Your task to perform on an android device: When is my next meeting? Image 0: 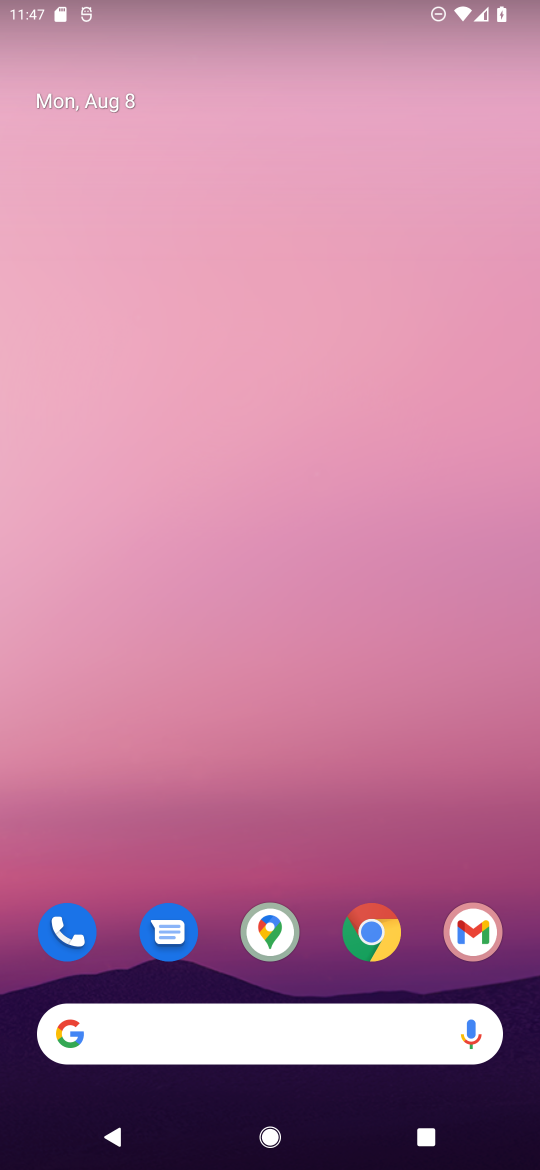
Step 0: click (102, 99)
Your task to perform on an android device: When is my next meeting? Image 1: 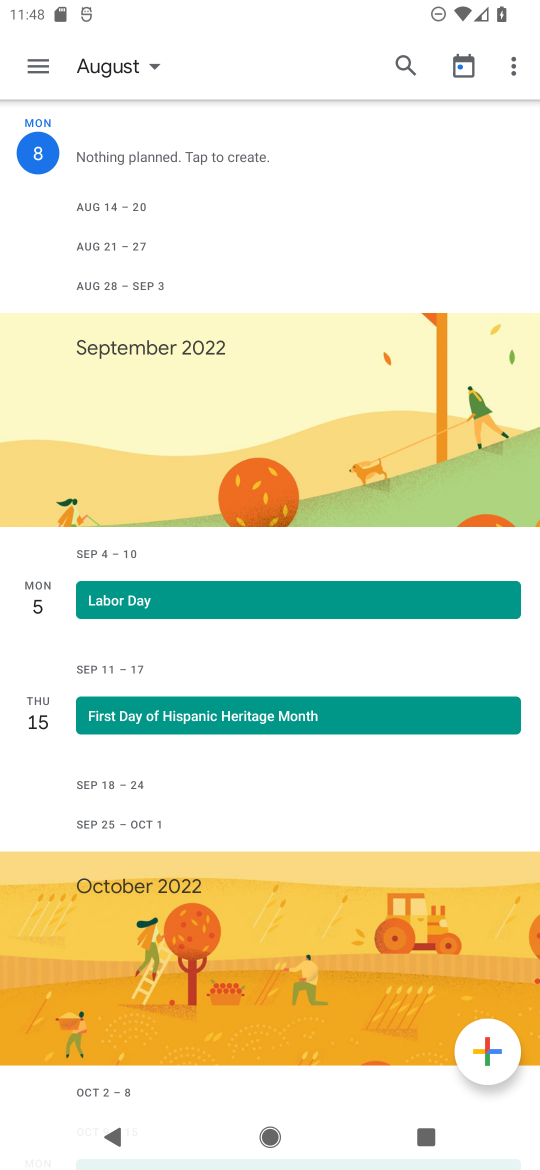
Step 1: task complete